Your task to perform on an android device: toggle location history Image 0: 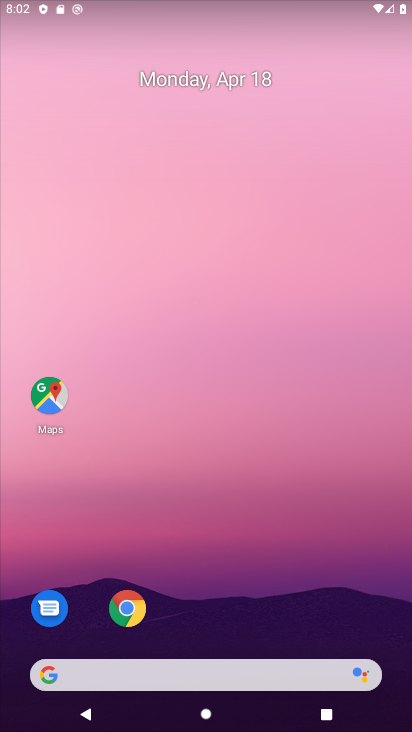
Step 0: drag from (180, 587) to (261, 87)
Your task to perform on an android device: toggle location history Image 1: 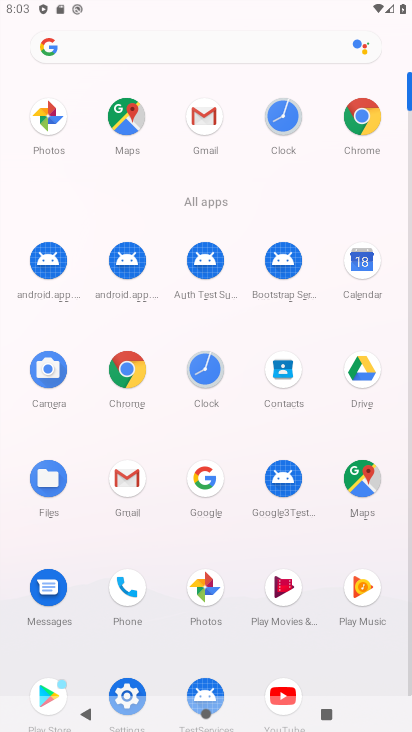
Step 1: drag from (186, 542) to (178, 377)
Your task to perform on an android device: toggle location history Image 2: 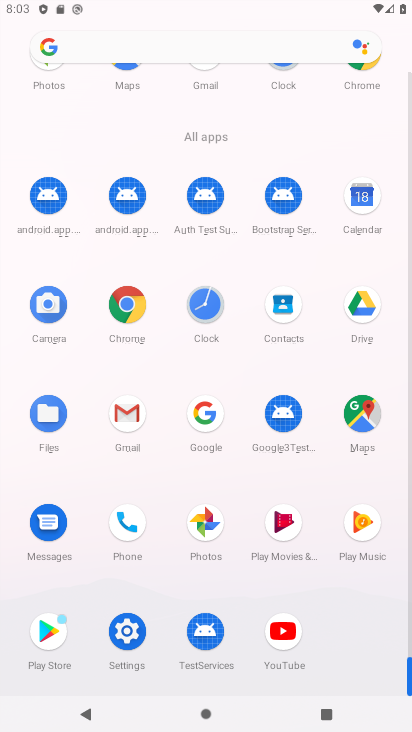
Step 2: click (132, 631)
Your task to perform on an android device: toggle location history Image 3: 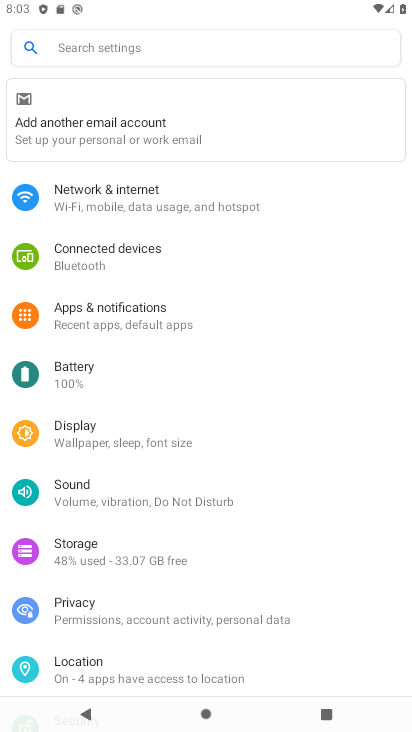
Step 3: drag from (110, 518) to (135, 435)
Your task to perform on an android device: toggle location history Image 4: 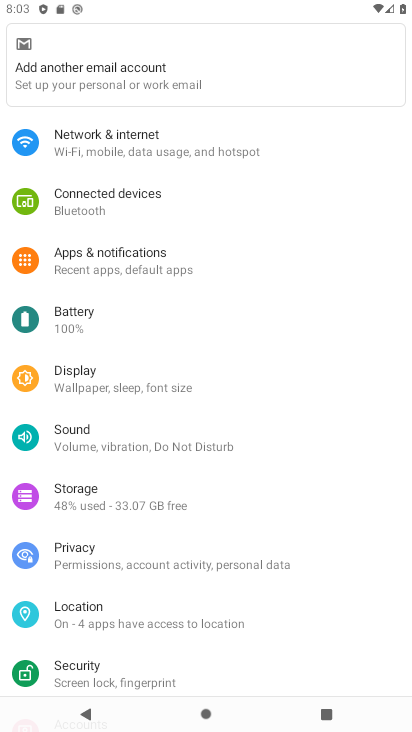
Step 4: click (86, 609)
Your task to perform on an android device: toggle location history Image 5: 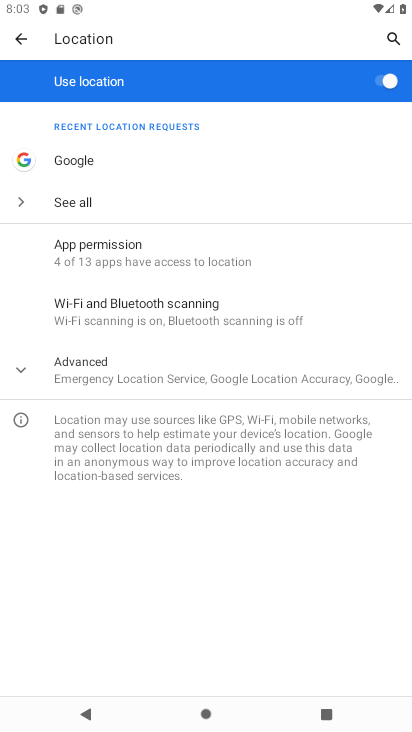
Step 5: click (101, 362)
Your task to perform on an android device: toggle location history Image 6: 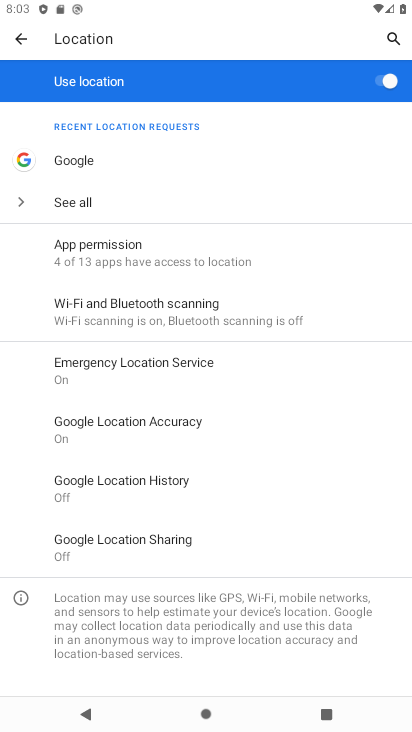
Step 6: click (123, 485)
Your task to perform on an android device: toggle location history Image 7: 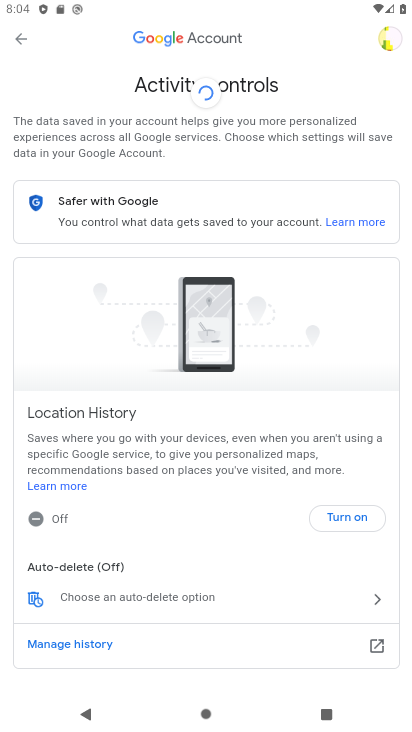
Step 7: click (345, 519)
Your task to perform on an android device: toggle location history Image 8: 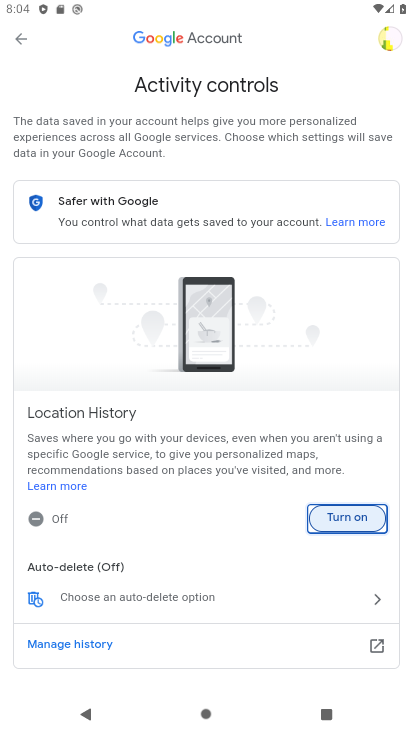
Step 8: click (345, 519)
Your task to perform on an android device: toggle location history Image 9: 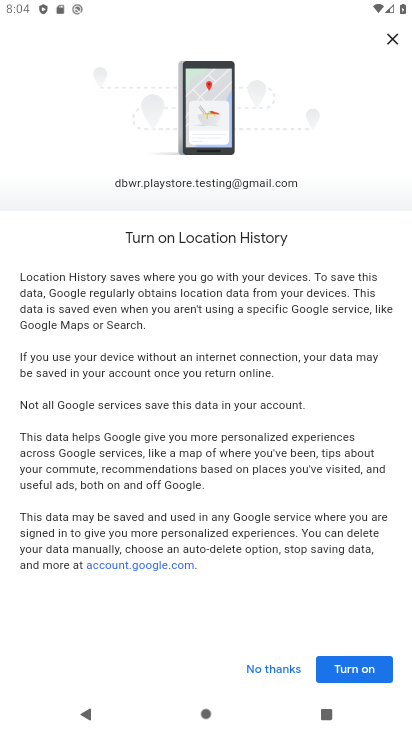
Step 9: click (355, 669)
Your task to perform on an android device: toggle location history Image 10: 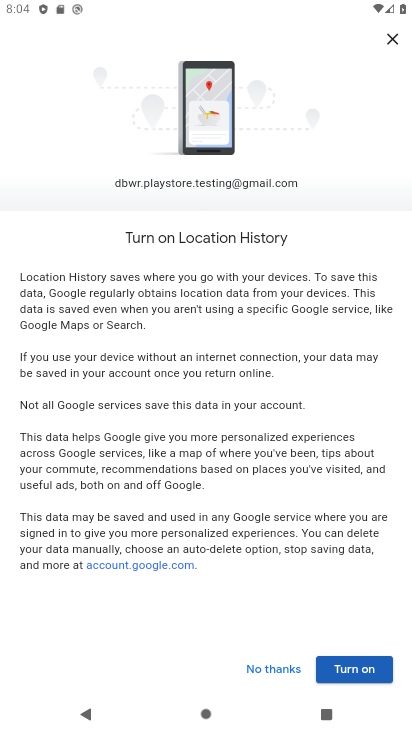
Step 10: task complete